Your task to perform on an android device: Open sound settings Image 0: 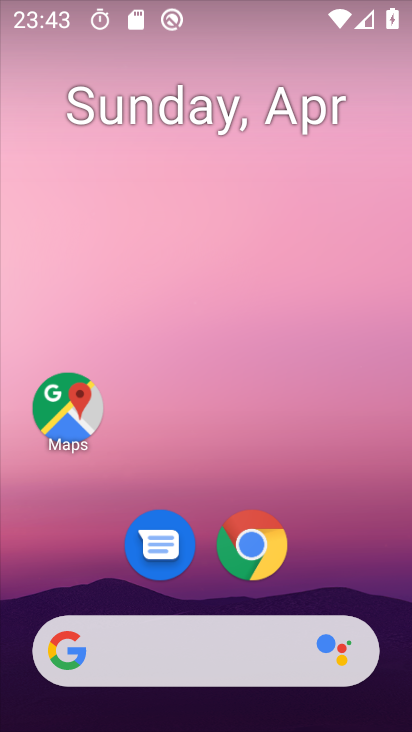
Step 0: drag from (331, 505) to (331, 270)
Your task to perform on an android device: Open sound settings Image 1: 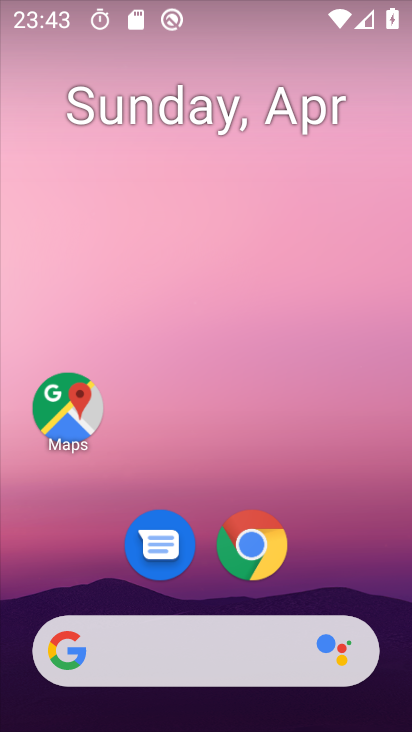
Step 1: drag from (328, 564) to (363, 299)
Your task to perform on an android device: Open sound settings Image 2: 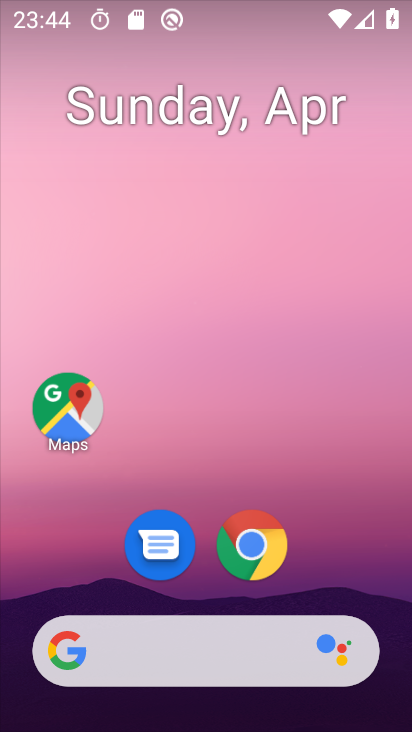
Step 2: drag from (341, 584) to (341, 183)
Your task to perform on an android device: Open sound settings Image 3: 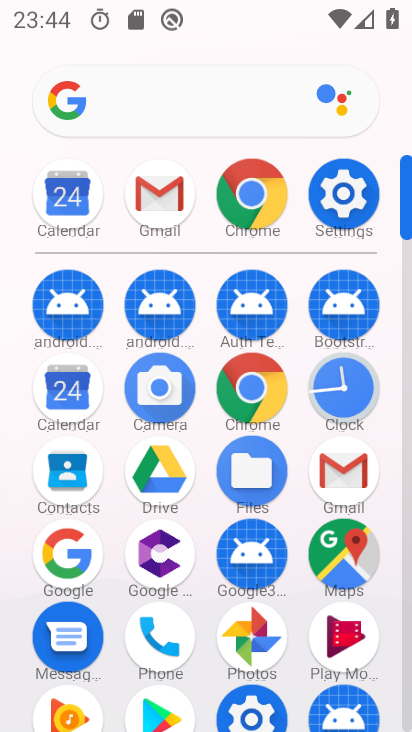
Step 3: click (346, 200)
Your task to perform on an android device: Open sound settings Image 4: 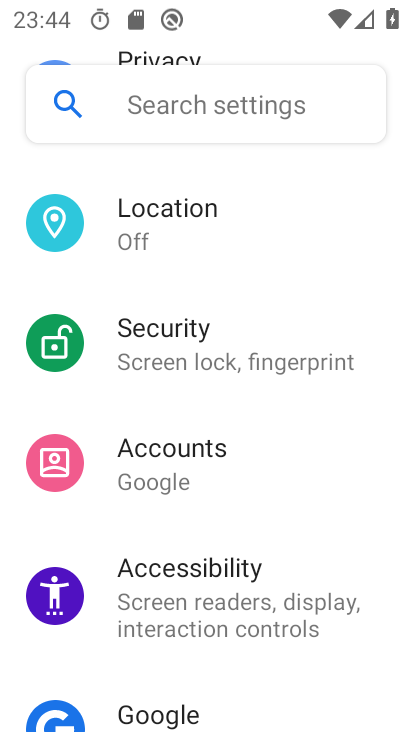
Step 4: drag from (208, 596) to (282, 191)
Your task to perform on an android device: Open sound settings Image 5: 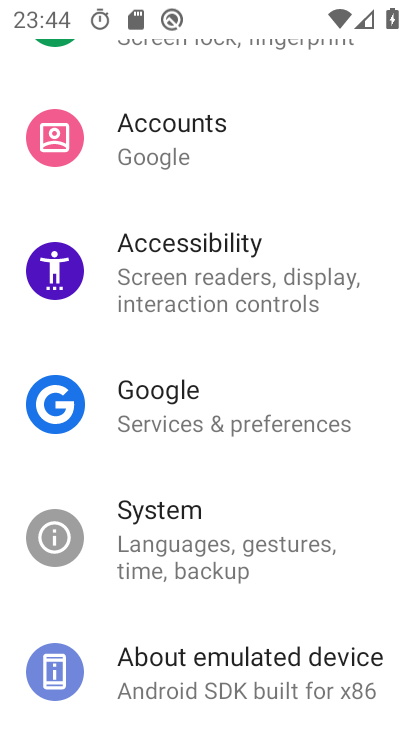
Step 5: click (193, 614)
Your task to perform on an android device: Open sound settings Image 6: 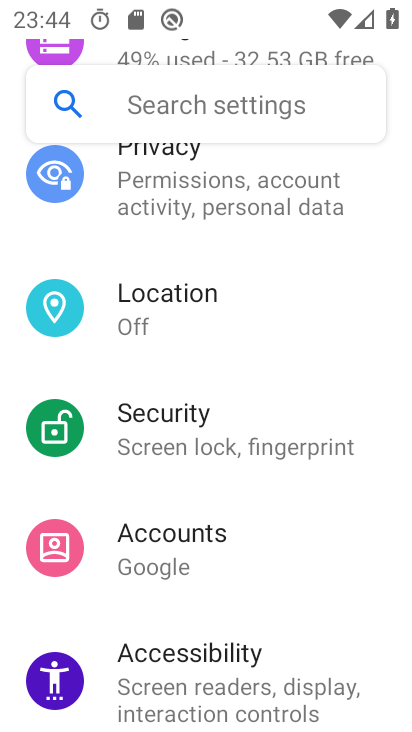
Step 6: drag from (258, 194) to (199, 655)
Your task to perform on an android device: Open sound settings Image 7: 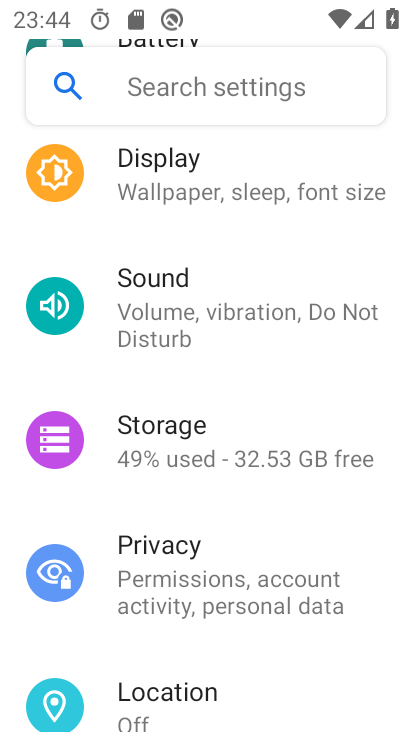
Step 7: drag from (167, 440) to (170, 642)
Your task to perform on an android device: Open sound settings Image 8: 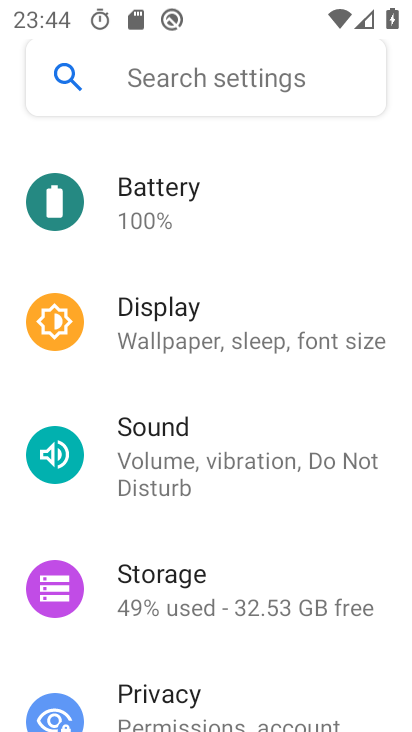
Step 8: click (183, 462)
Your task to perform on an android device: Open sound settings Image 9: 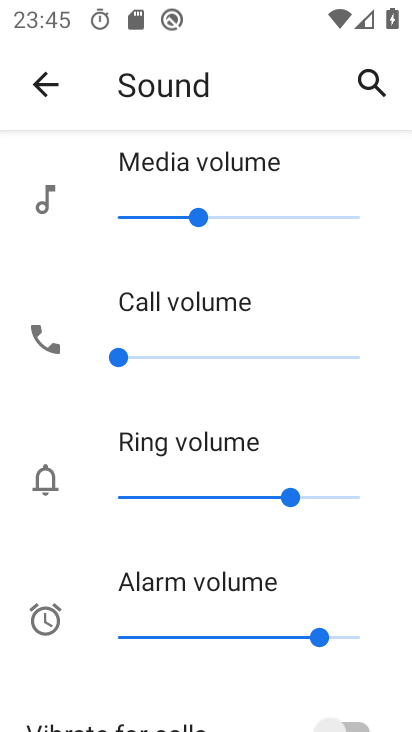
Step 9: task complete